Your task to perform on an android device: Open Chrome and go to settings Image 0: 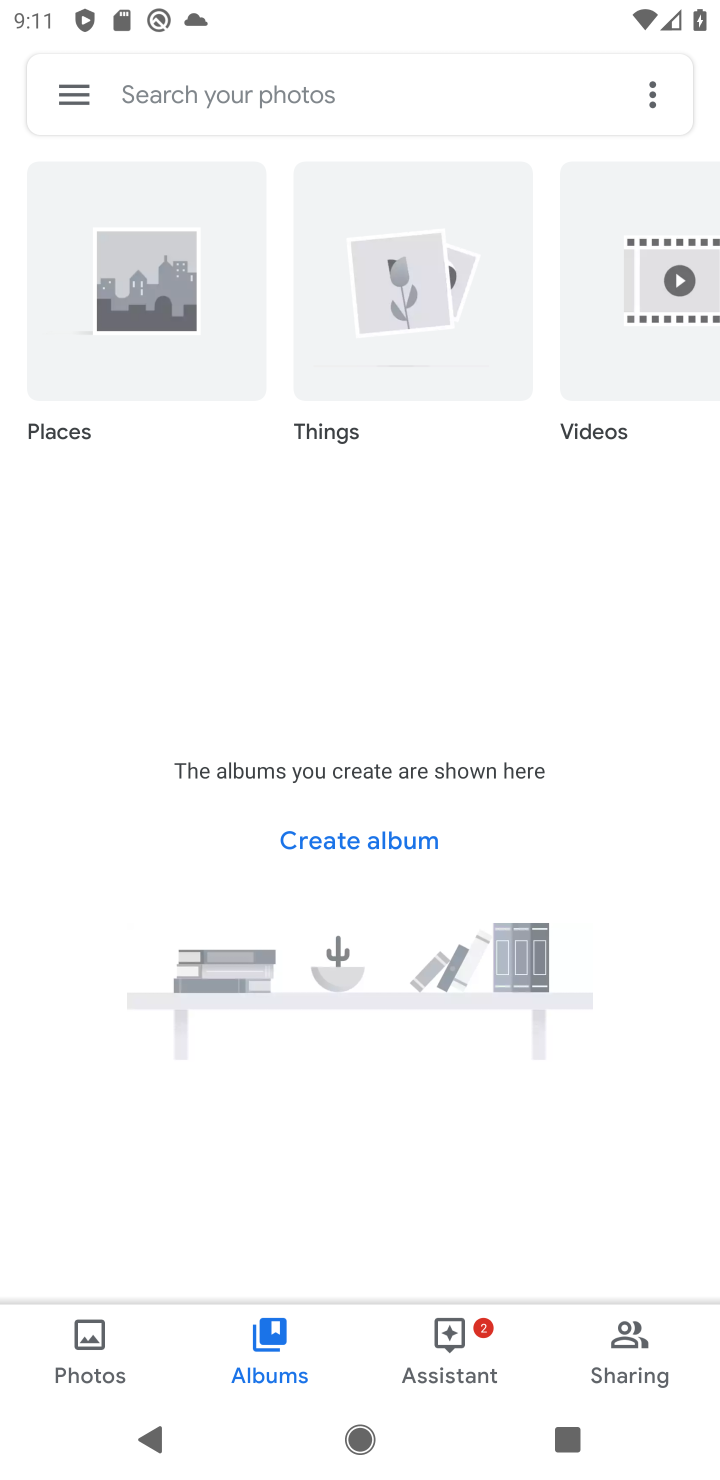
Step 0: press home button
Your task to perform on an android device: Open Chrome and go to settings Image 1: 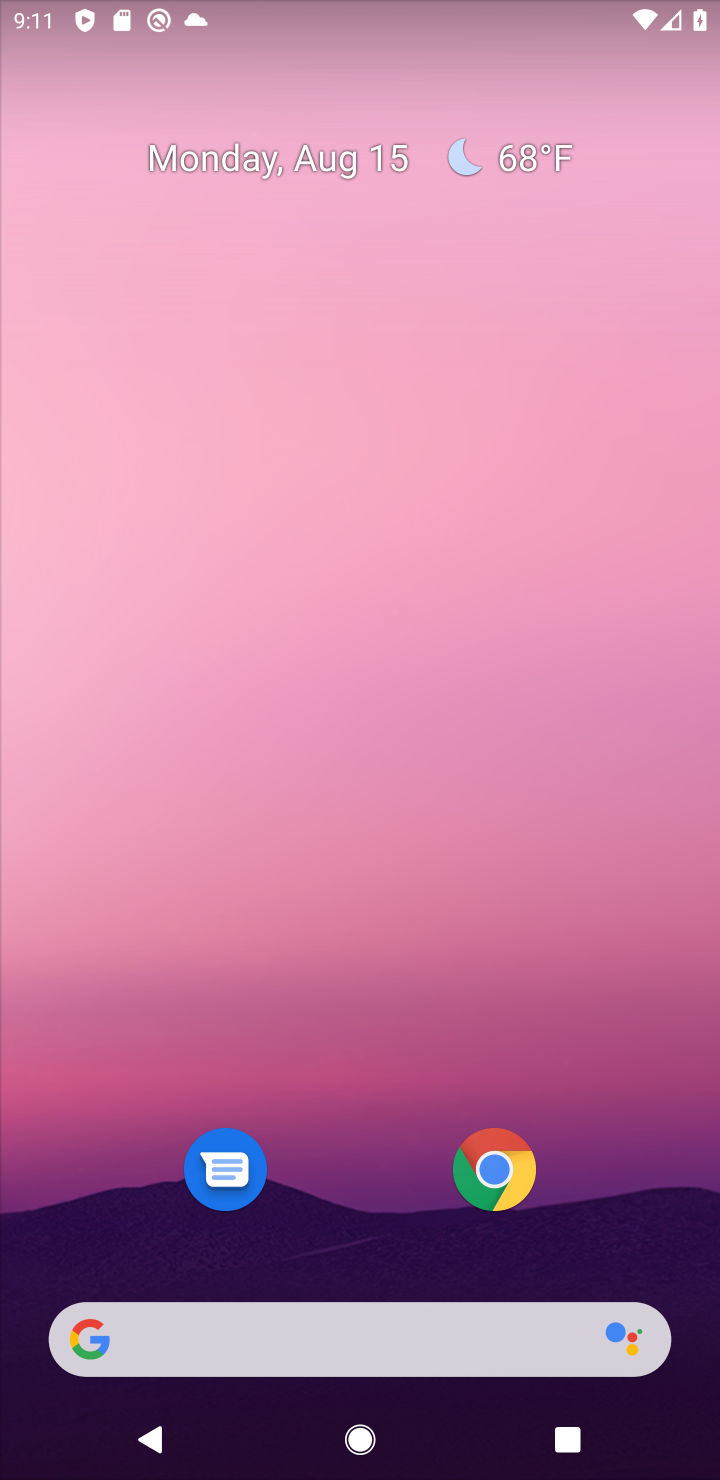
Step 1: click (485, 1179)
Your task to perform on an android device: Open Chrome and go to settings Image 2: 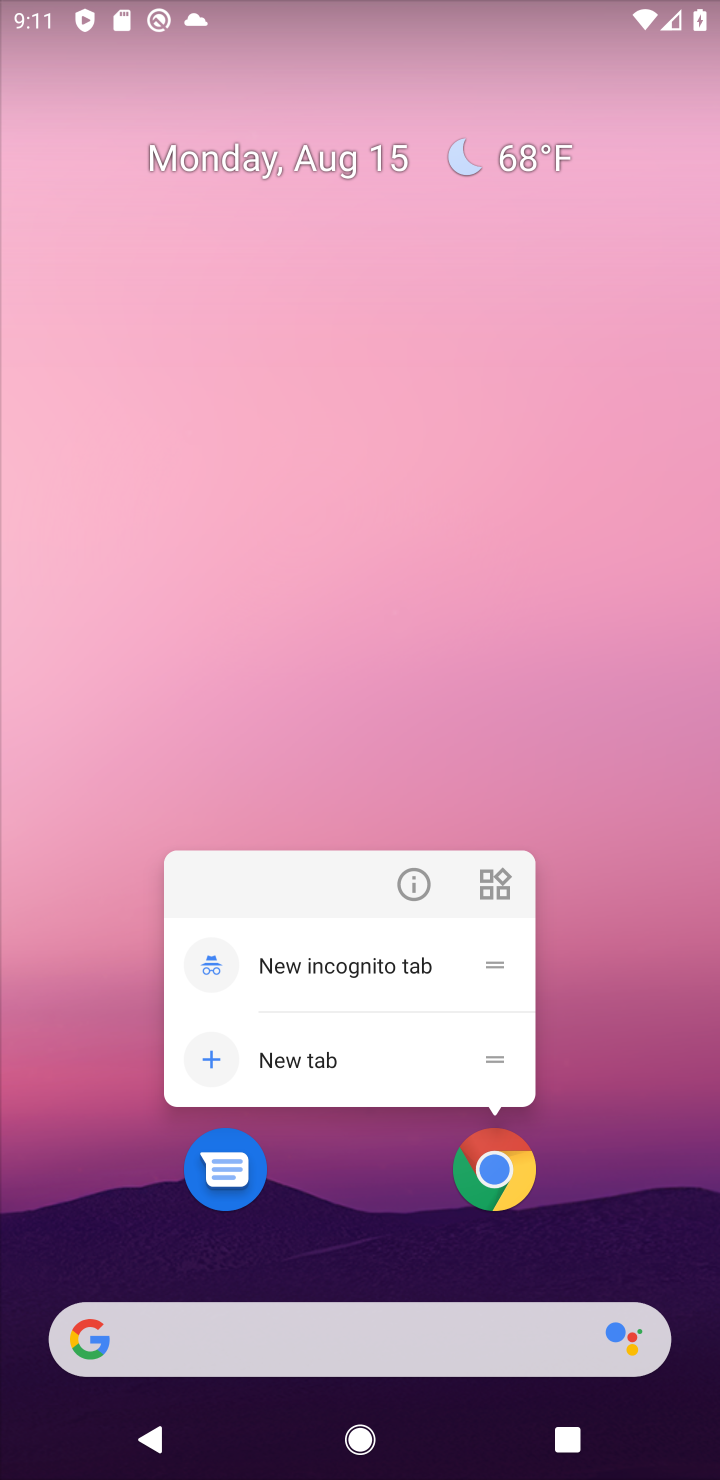
Step 2: click (485, 1176)
Your task to perform on an android device: Open Chrome and go to settings Image 3: 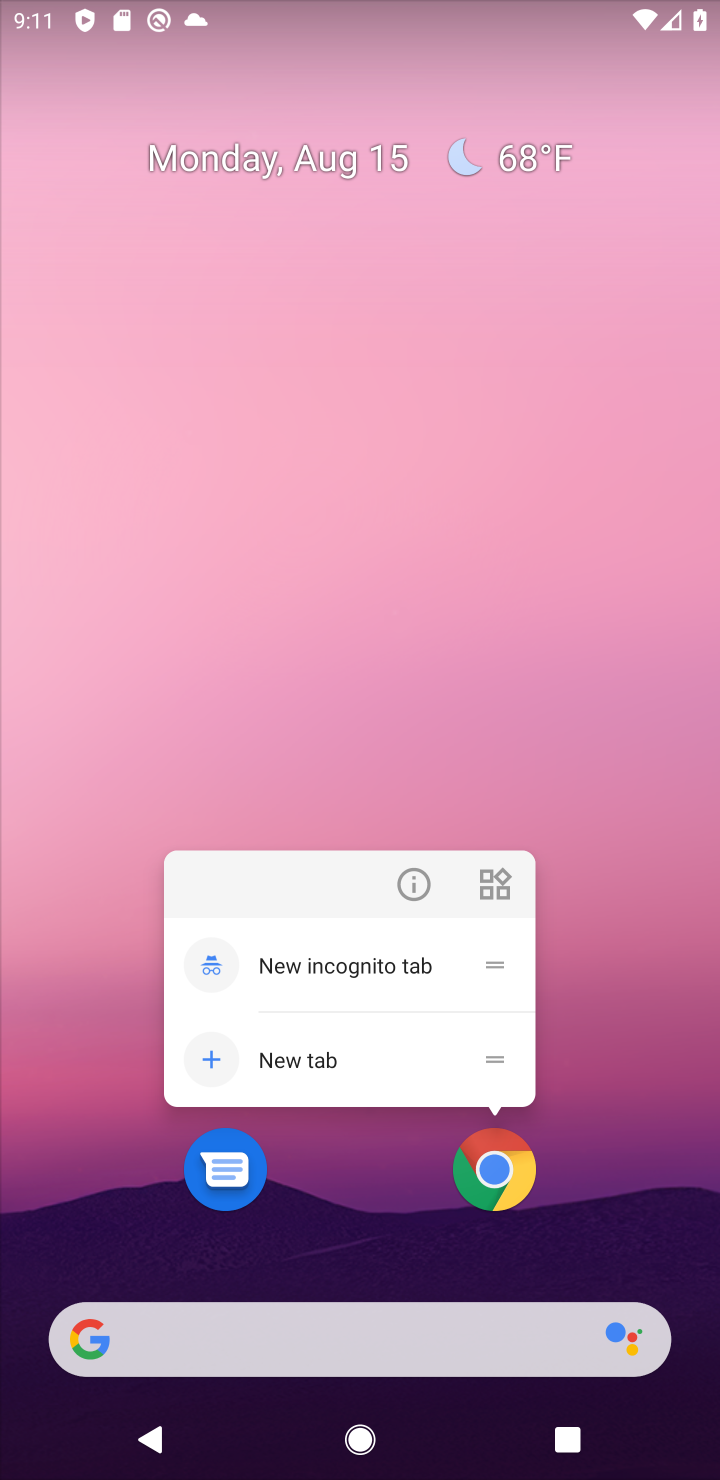
Step 3: click (499, 1168)
Your task to perform on an android device: Open Chrome and go to settings Image 4: 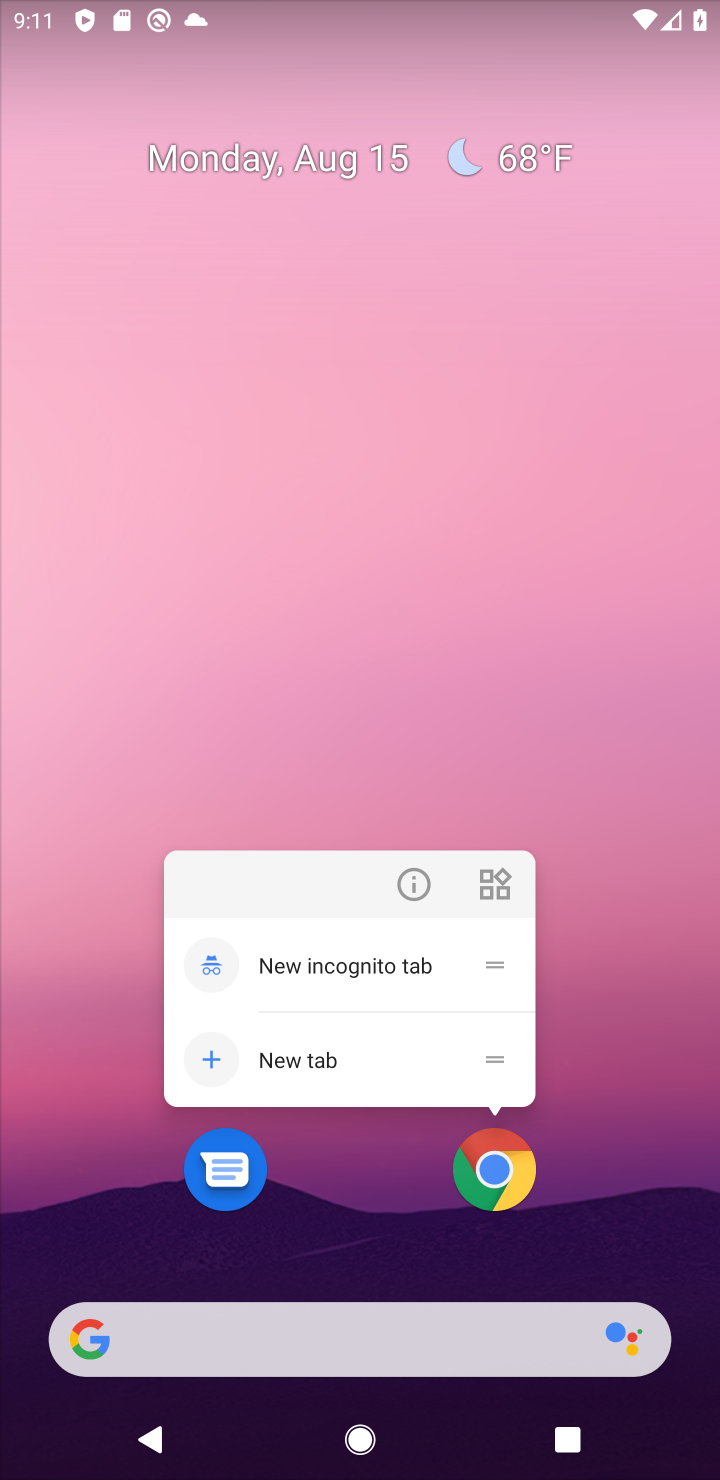
Step 4: click (499, 1169)
Your task to perform on an android device: Open Chrome and go to settings Image 5: 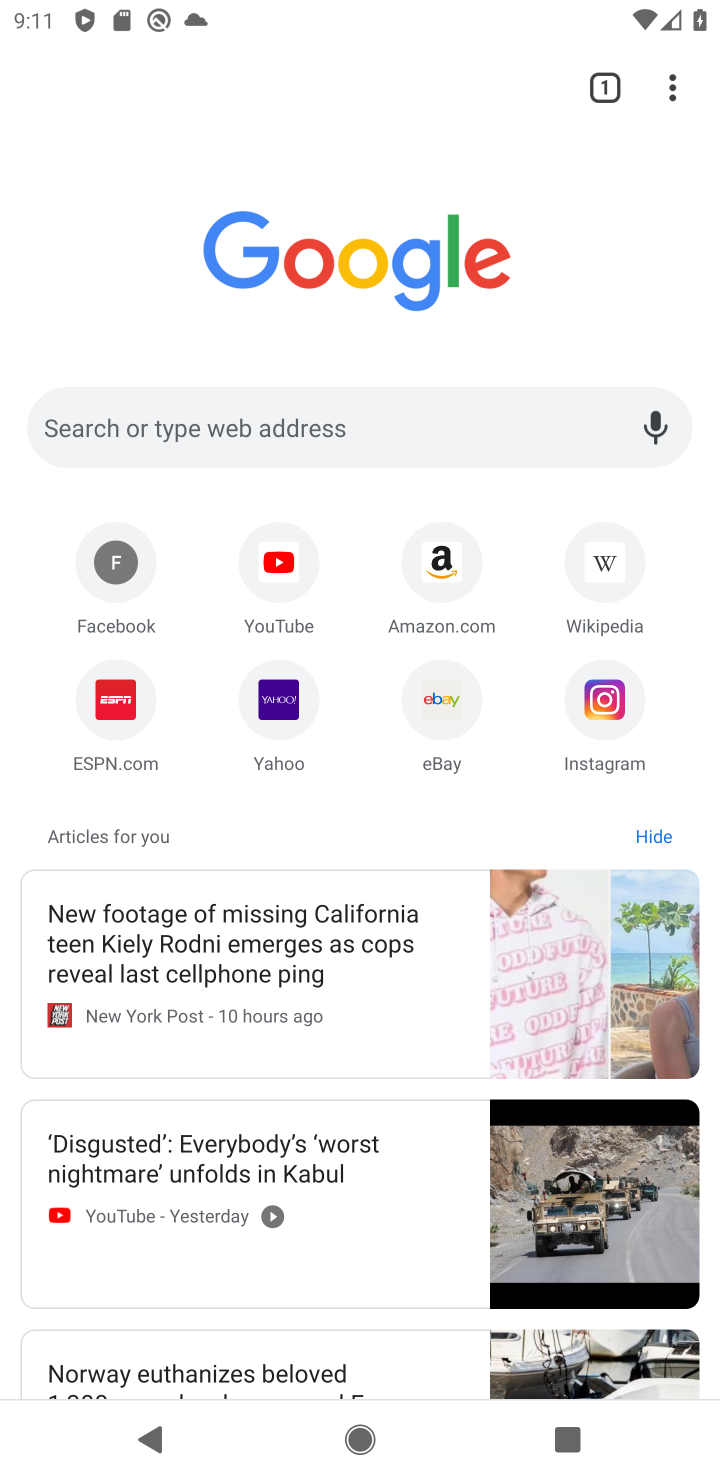
Step 5: task complete